Your task to perform on an android device: turn off airplane mode Image 0: 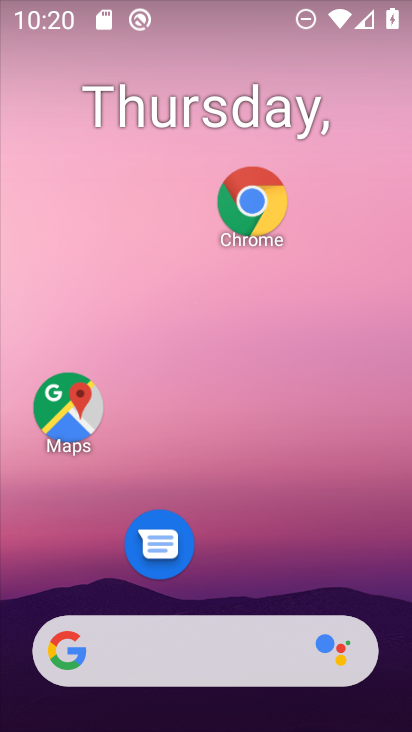
Step 0: drag from (177, 12) to (219, 518)
Your task to perform on an android device: turn off airplane mode Image 1: 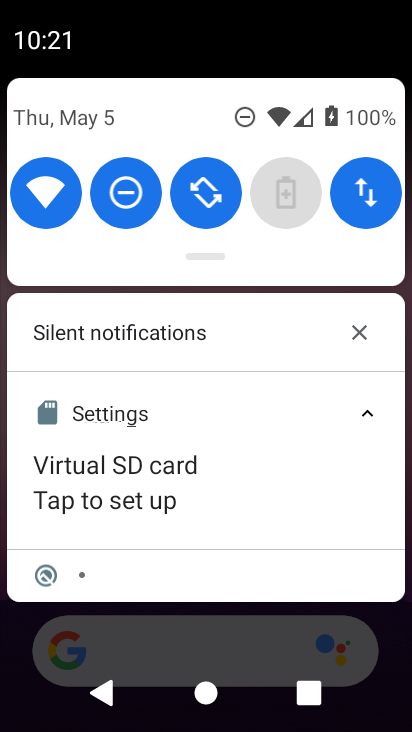
Step 1: click (127, 196)
Your task to perform on an android device: turn off airplane mode Image 2: 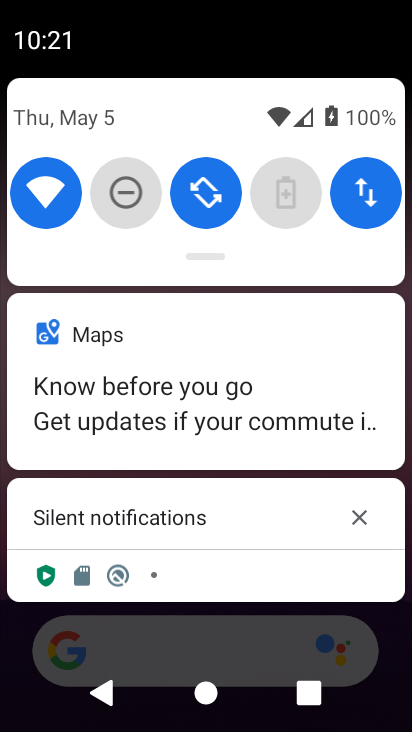
Step 2: task complete